Your task to perform on an android device: Go to Google Image 0: 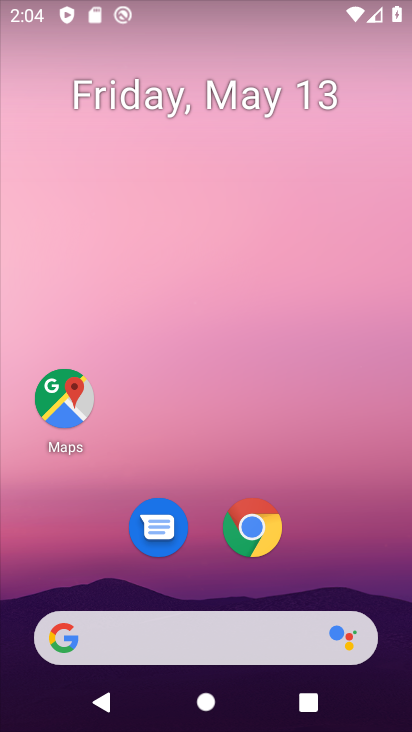
Step 0: drag from (389, 551) to (350, 166)
Your task to perform on an android device: Go to Google Image 1: 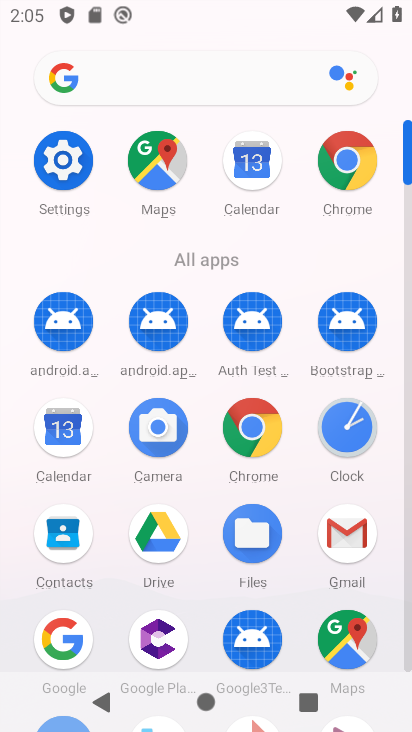
Step 1: click (74, 644)
Your task to perform on an android device: Go to Google Image 2: 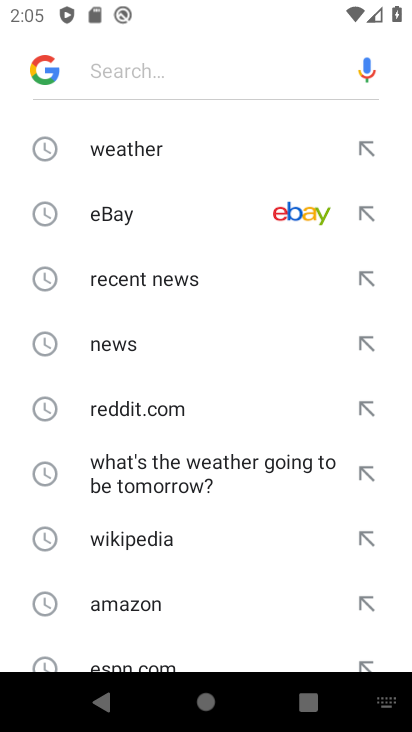
Step 2: task complete